Your task to perform on an android device: see tabs open on other devices in the chrome app Image 0: 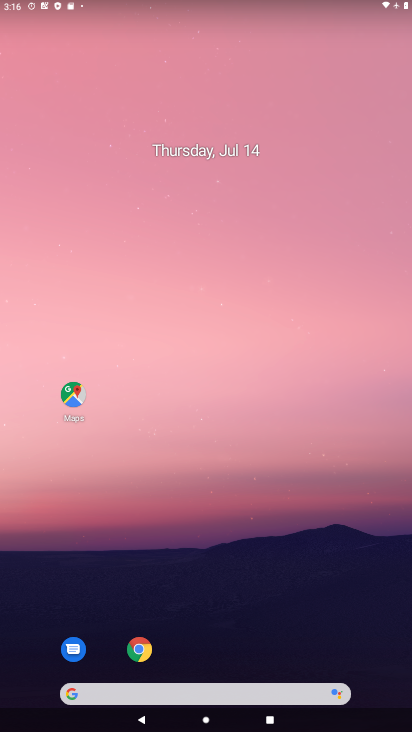
Step 0: drag from (208, 620) to (254, 3)
Your task to perform on an android device: see tabs open on other devices in the chrome app Image 1: 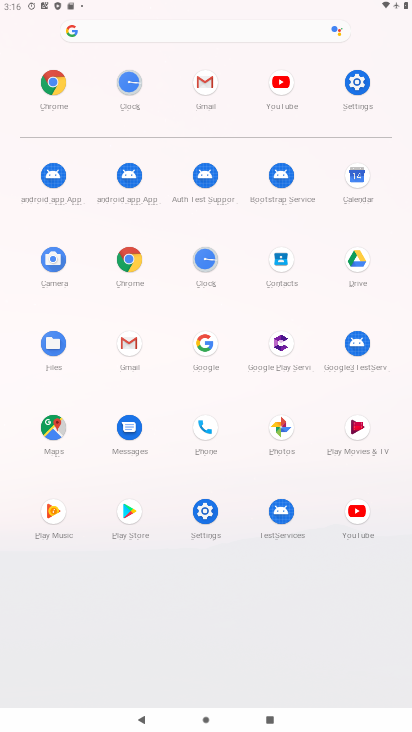
Step 1: click (134, 271)
Your task to perform on an android device: see tabs open on other devices in the chrome app Image 2: 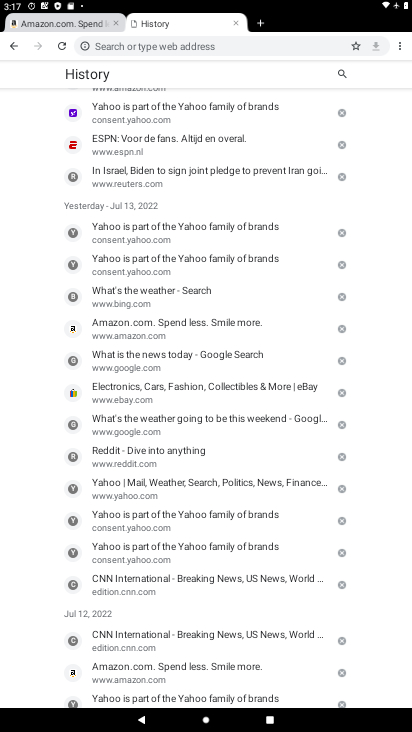
Step 2: click (394, 44)
Your task to perform on an android device: see tabs open on other devices in the chrome app Image 3: 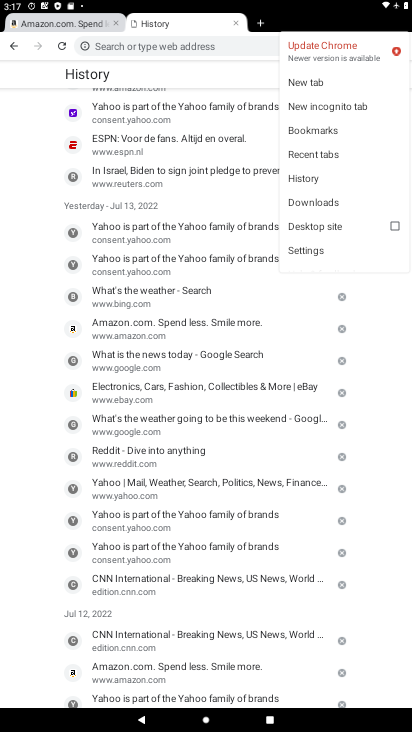
Step 3: click (325, 152)
Your task to perform on an android device: see tabs open on other devices in the chrome app Image 4: 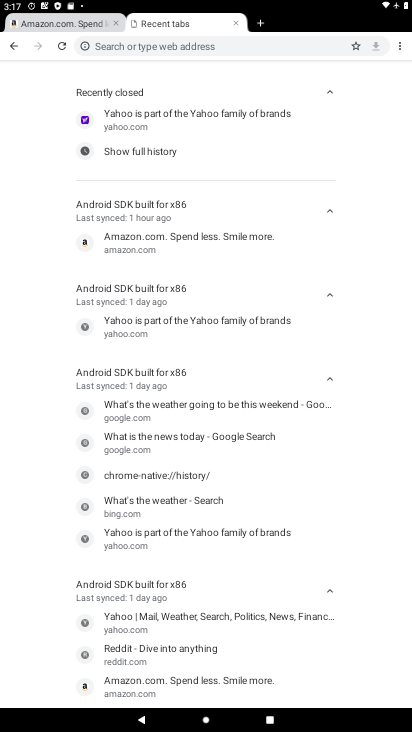
Step 4: task complete